Your task to perform on an android device: search for starred emails in the gmail app Image 0: 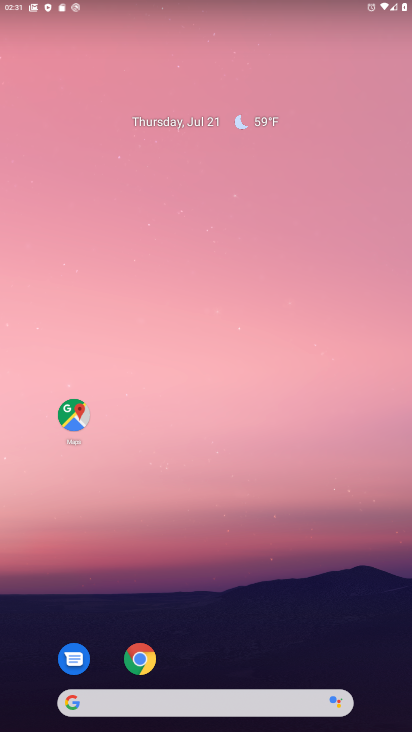
Step 0: drag from (274, 620) to (225, 55)
Your task to perform on an android device: search for starred emails in the gmail app Image 1: 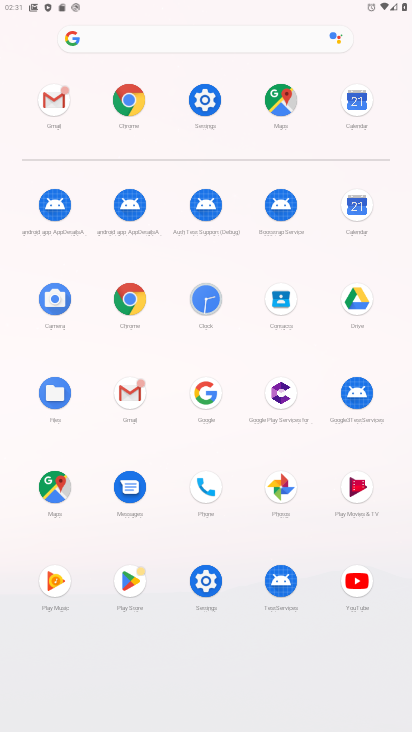
Step 1: click (131, 388)
Your task to perform on an android device: search for starred emails in the gmail app Image 2: 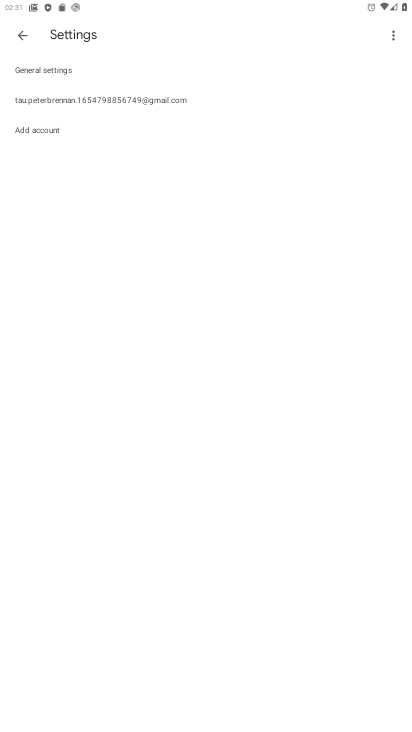
Step 2: press home button
Your task to perform on an android device: search for starred emails in the gmail app Image 3: 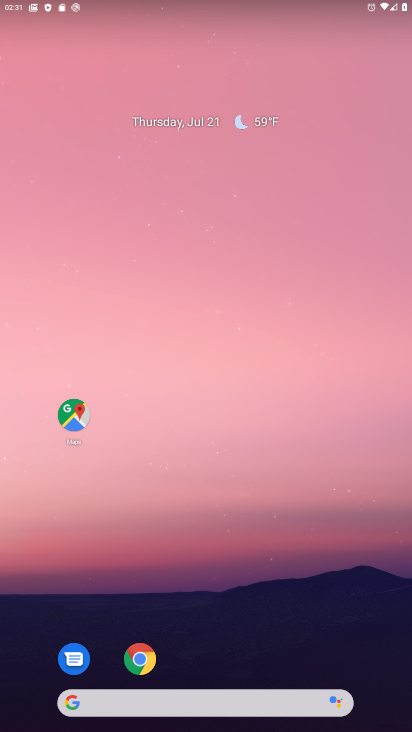
Step 3: drag from (263, 641) to (232, 141)
Your task to perform on an android device: search for starred emails in the gmail app Image 4: 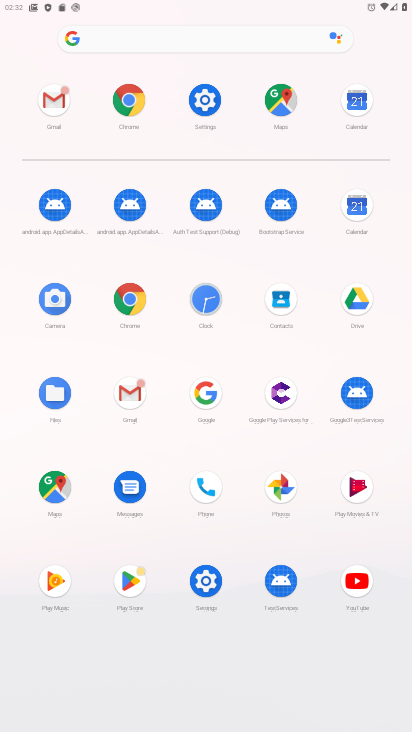
Step 4: click (132, 390)
Your task to perform on an android device: search for starred emails in the gmail app Image 5: 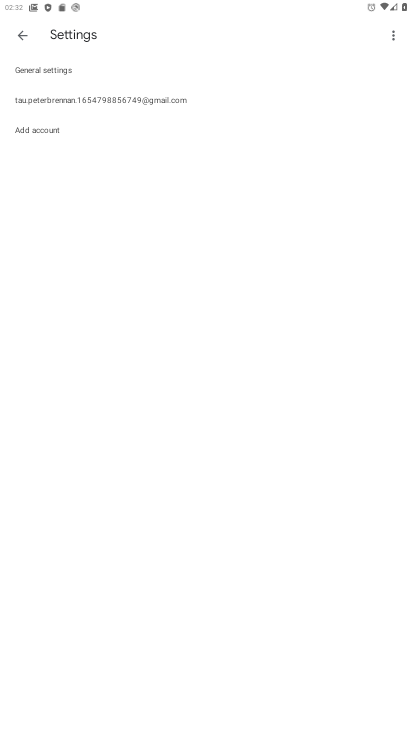
Step 5: click (24, 27)
Your task to perform on an android device: search for starred emails in the gmail app Image 6: 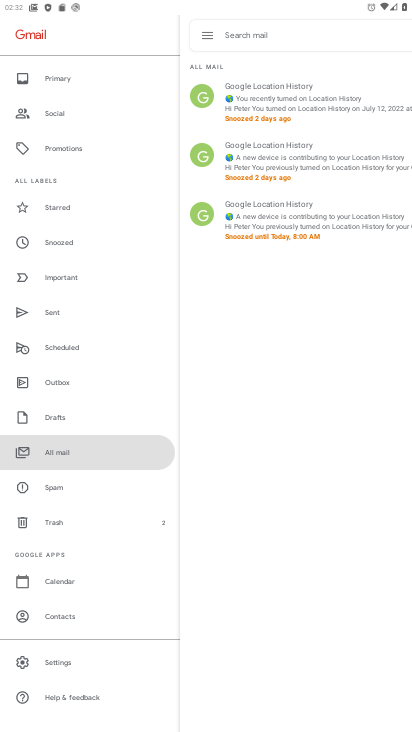
Step 6: click (60, 203)
Your task to perform on an android device: search for starred emails in the gmail app Image 7: 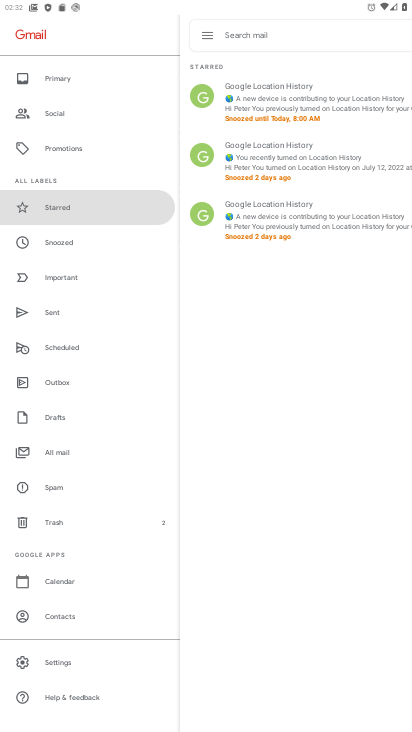
Step 7: task complete